Your task to perform on an android device: open a new tab in the chrome app Image 0: 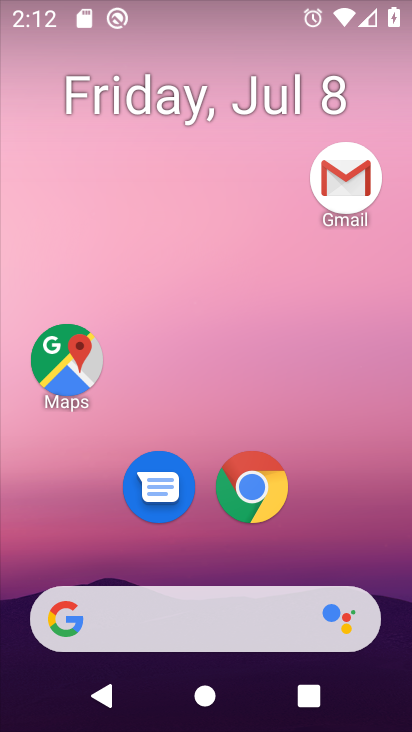
Step 0: drag from (359, 541) to (340, 195)
Your task to perform on an android device: open a new tab in the chrome app Image 1: 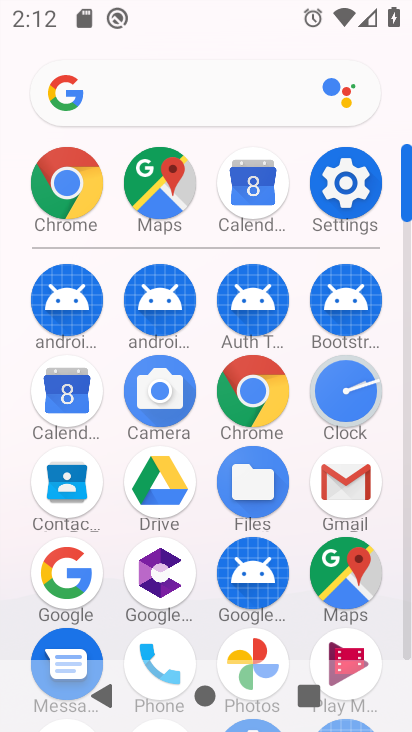
Step 1: click (263, 401)
Your task to perform on an android device: open a new tab in the chrome app Image 2: 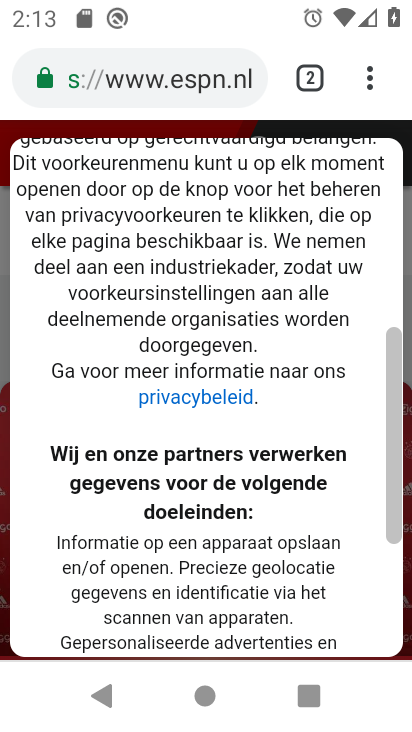
Step 2: click (375, 73)
Your task to perform on an android device: open a new tab in the chrome app Image 3: 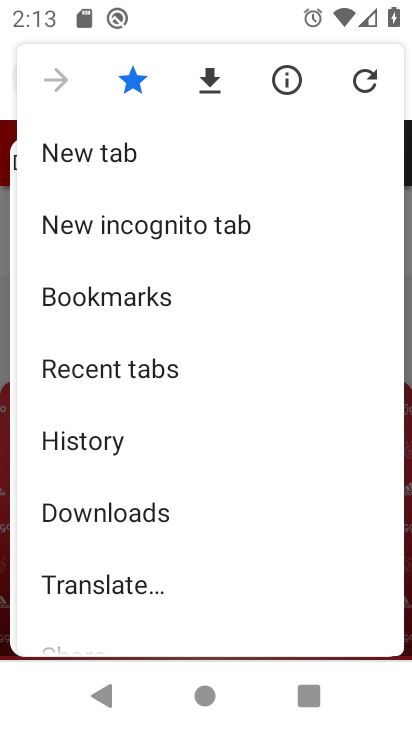
Step 3: click (113, 154)
Your task to perform on an android device: open a new tab in the chrome app Image 4: 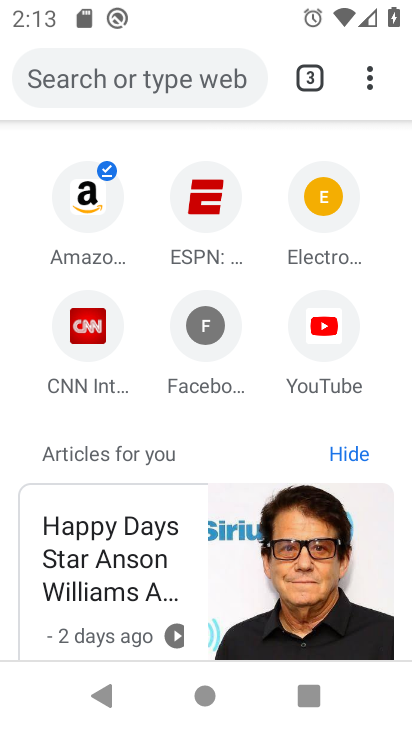
Step 4: task complete